Your task to perform on an android device: Do I have any events today? Image 0: 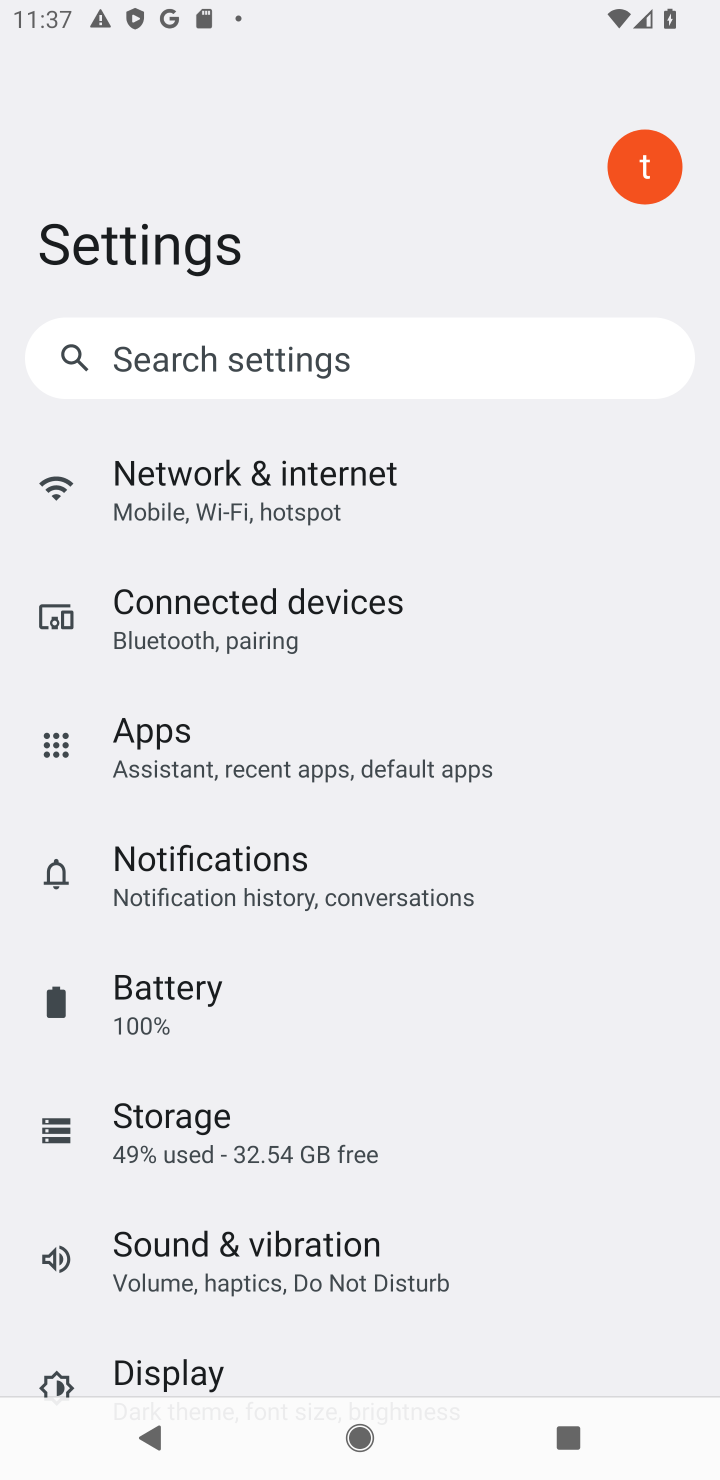
Step 0: press home button
Your task to perform on an android device: Do I have any events today? Image 1: 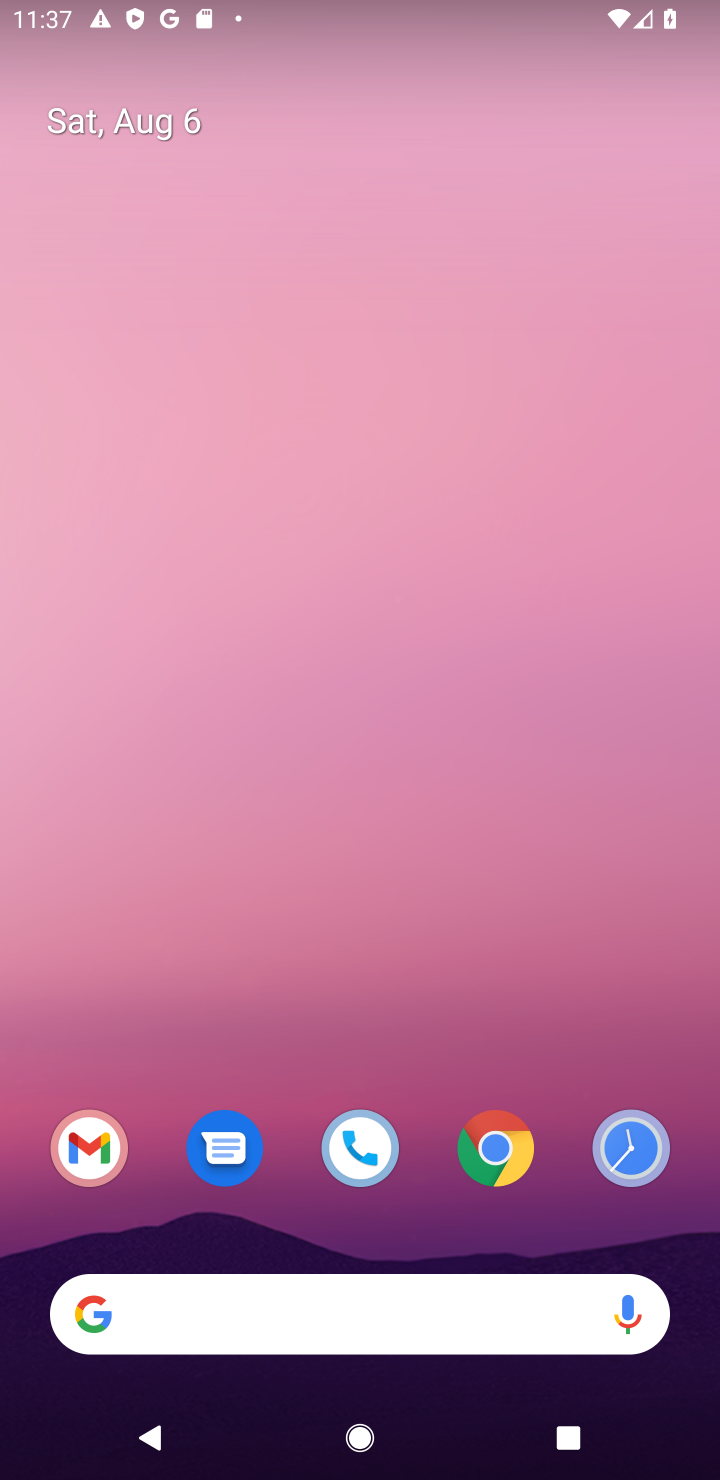
Step 1: drag from (353, 1069) to (353, 29)
Your task to perform on an android device: Do I have any events today? Image 2: 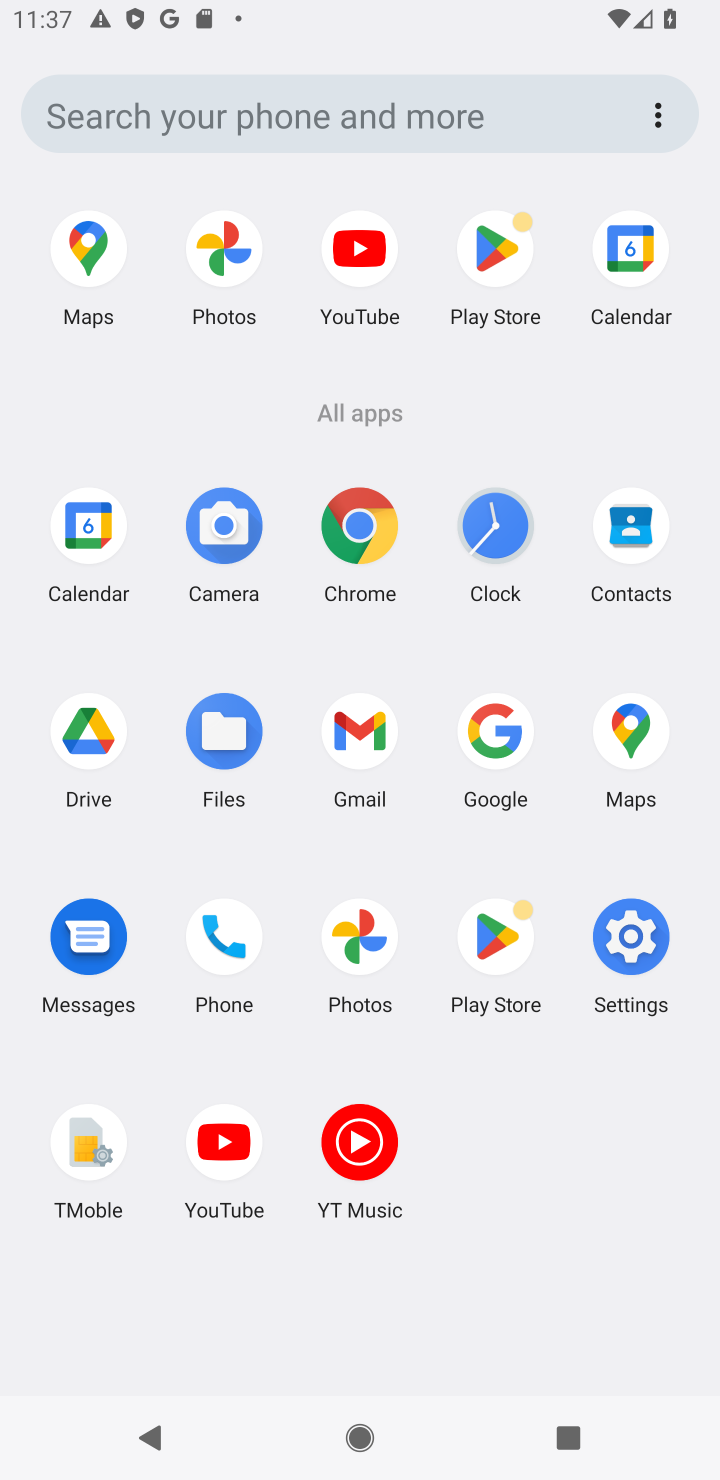
Step 2: click (95, 511)
Your task to perform on an android device: Do I have any events today? Image 3: 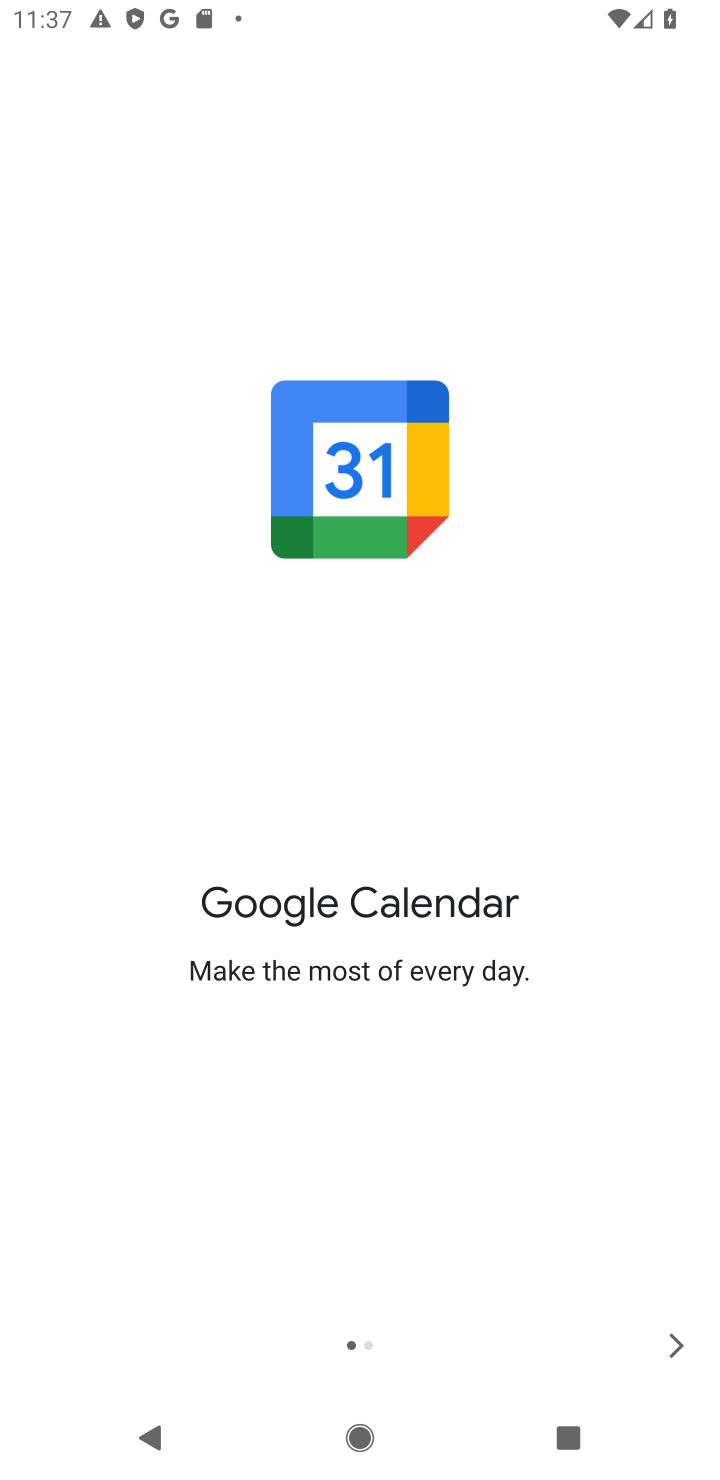
Step 3: click (681, 1337)
Your task to perform on an android device: Do I have any events today? Image 4: 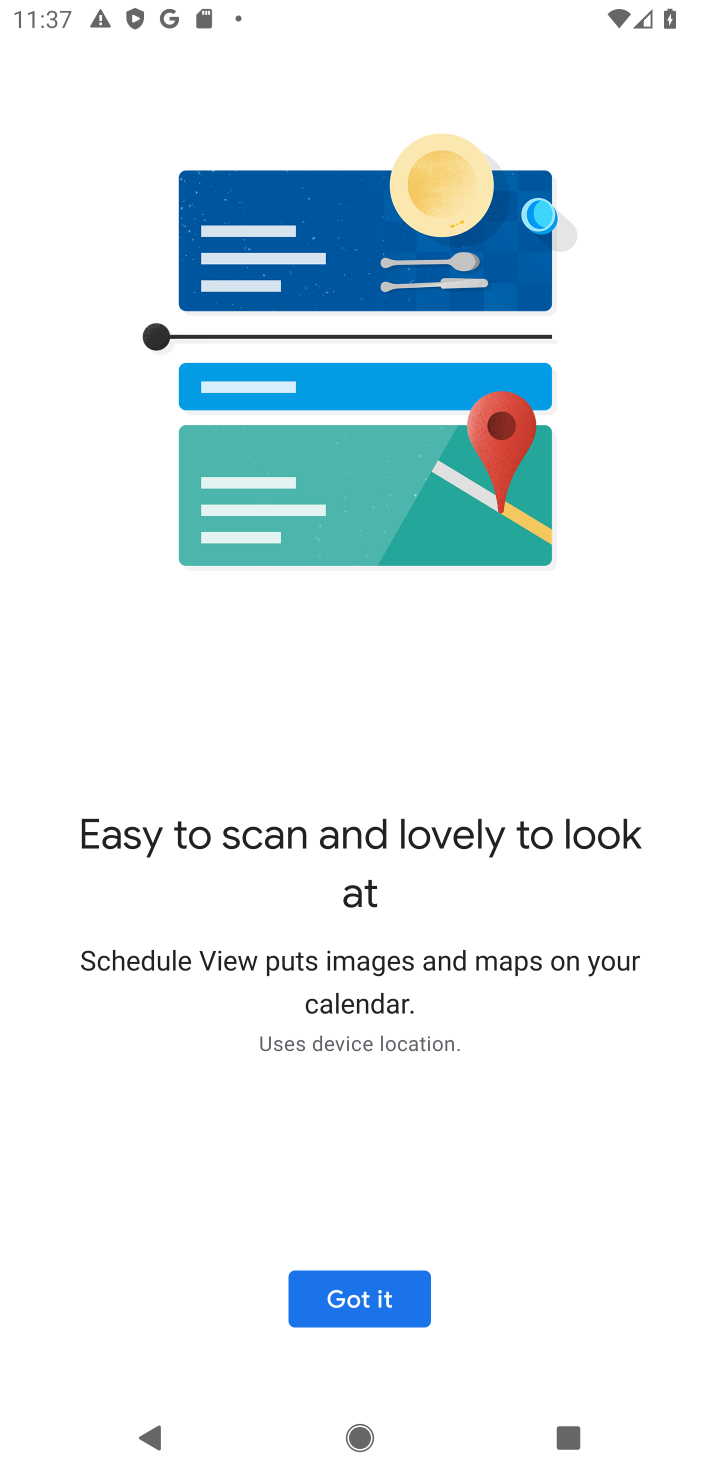
Step 4: click (681, 1337)
Your task to perform on an android device: Do I have any events today? Image 5: 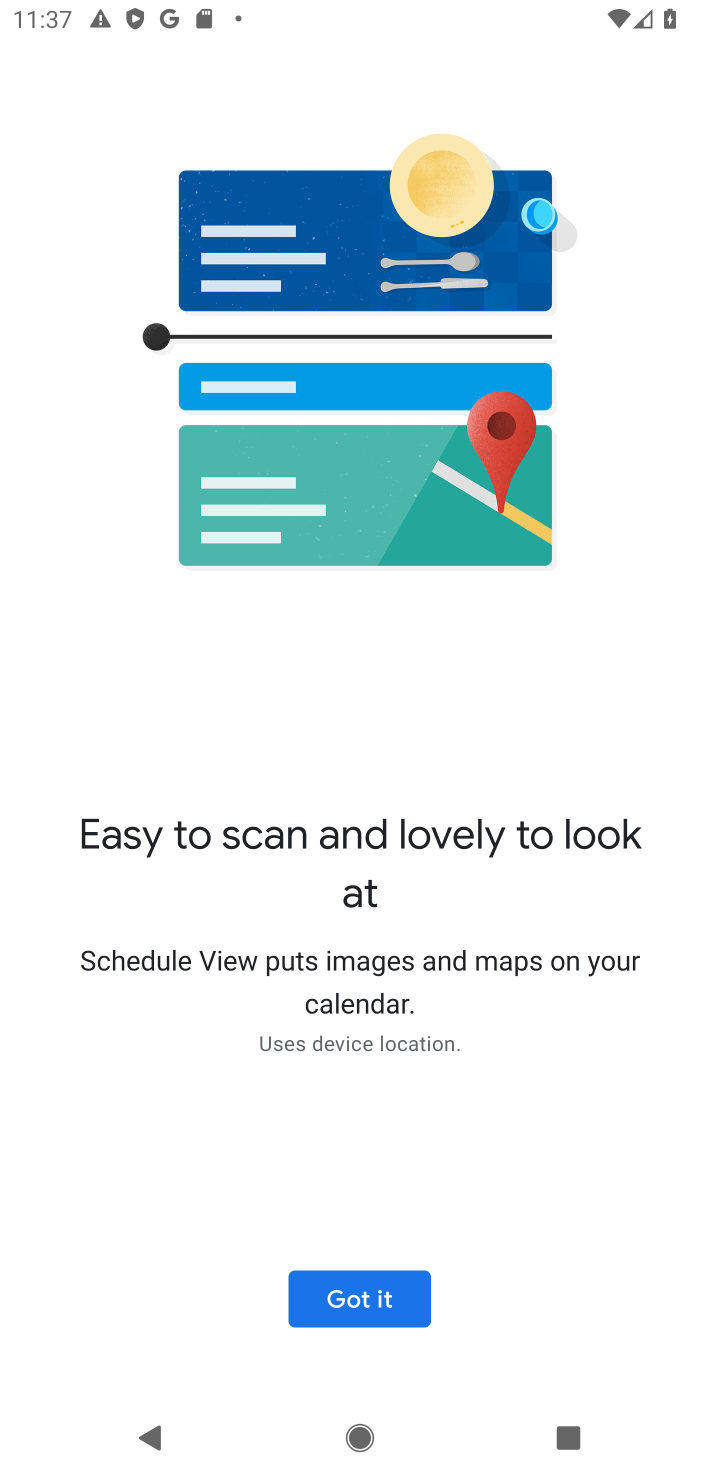
Step 5: click (354, 1293)
Your task to perform on an android device: Do I have any events today? Image 6: 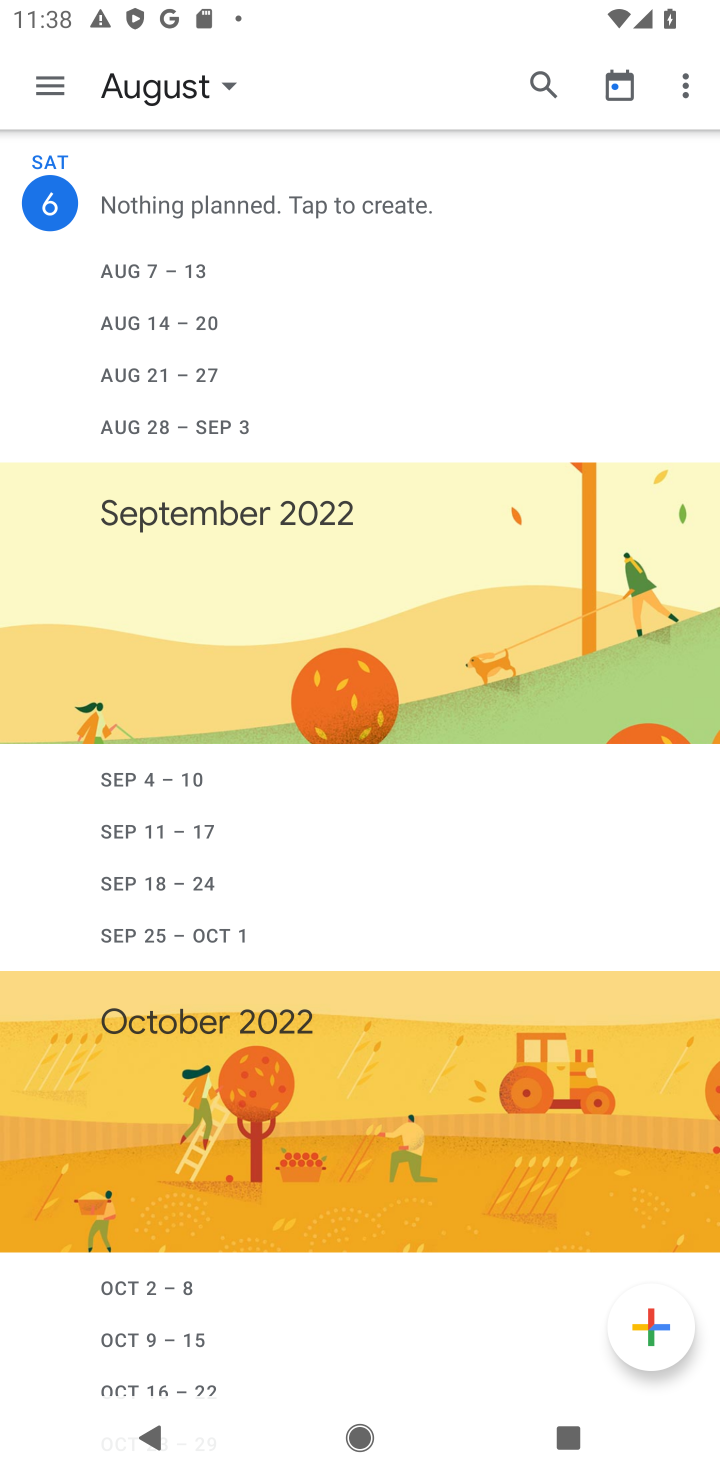
Step 6: click (51, 86)
Your task to perform on an android device: Do I have any events today? Image 7: 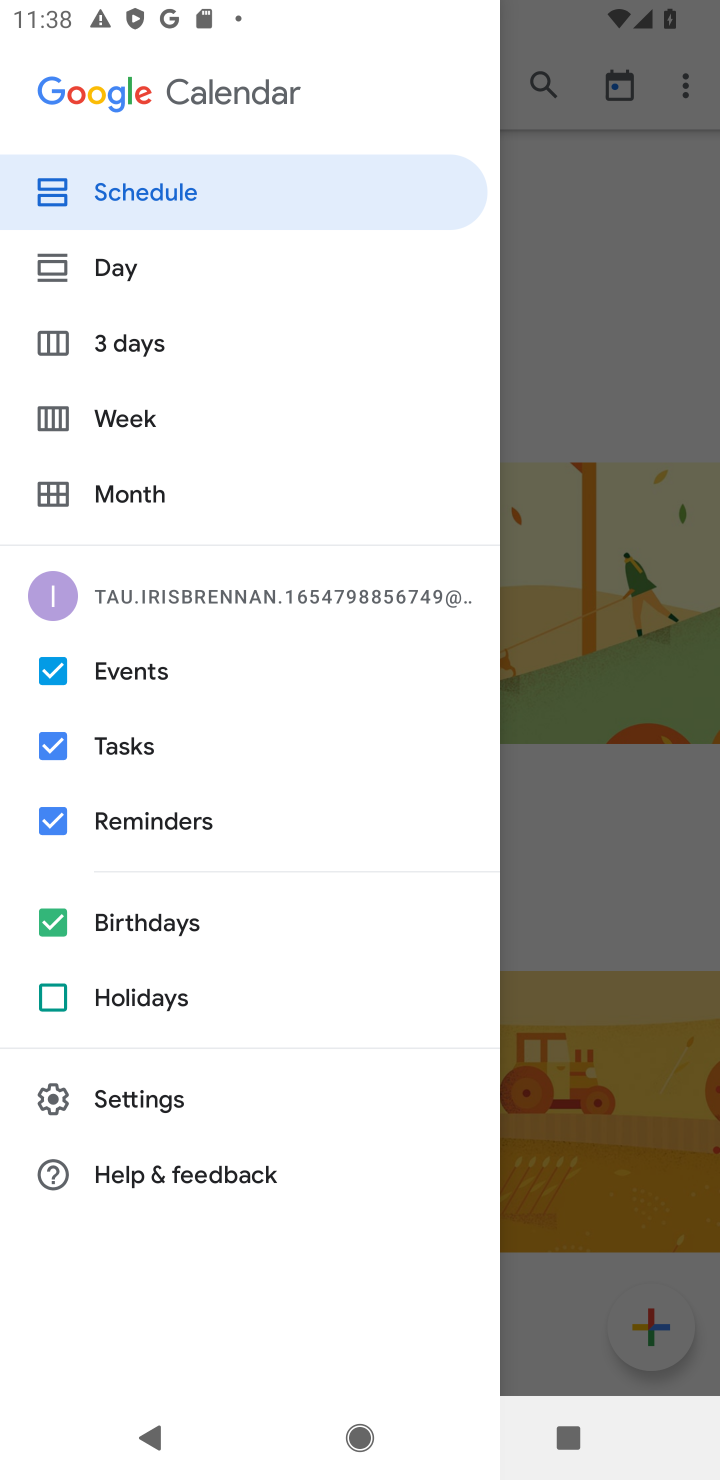
Step 7: click (133, 663)
Your task to perform on an android device: Do I have any events today? Image 8: 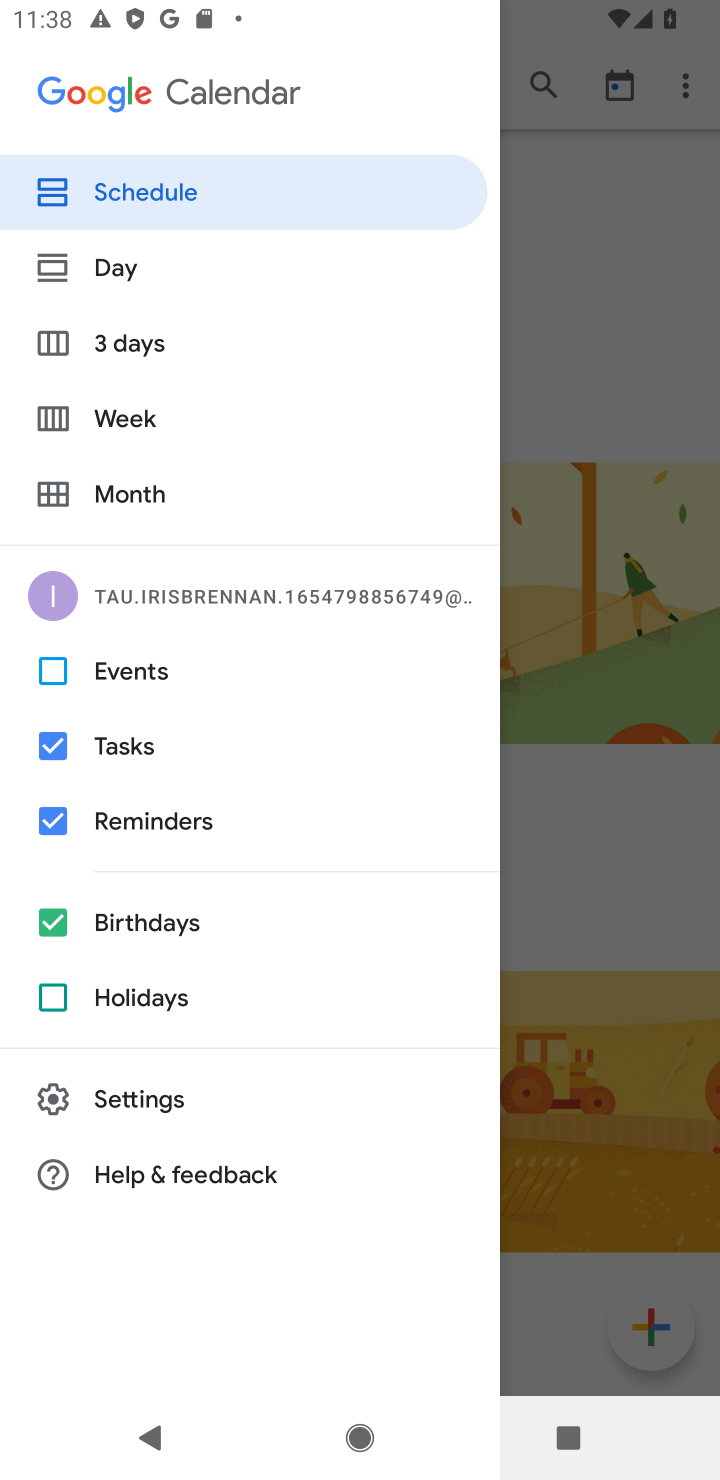
Step 8: click (107, 272)
Your task to perform on an android device: Do I have any events today? Image 9: 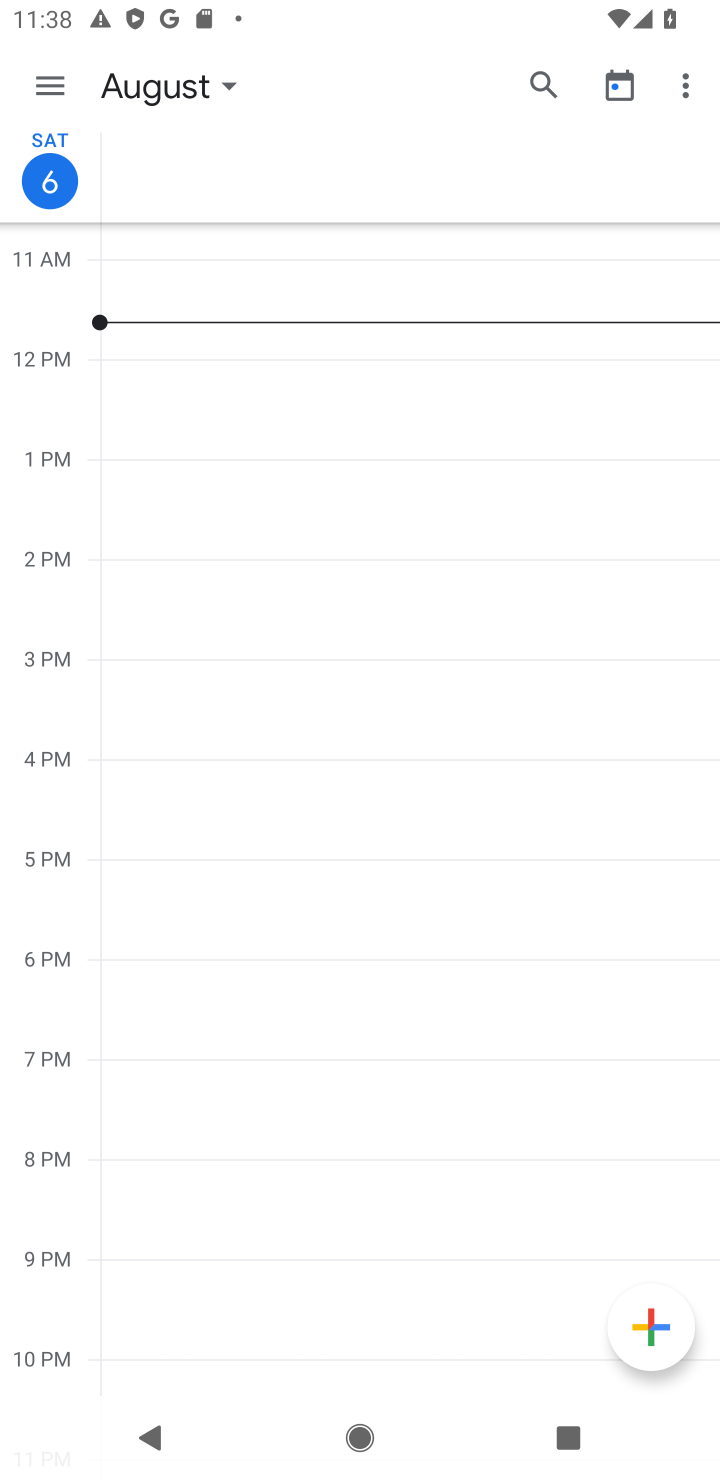
Step 9: task complete